Your task to perform on an android device: What's the news about the US? Image 0: 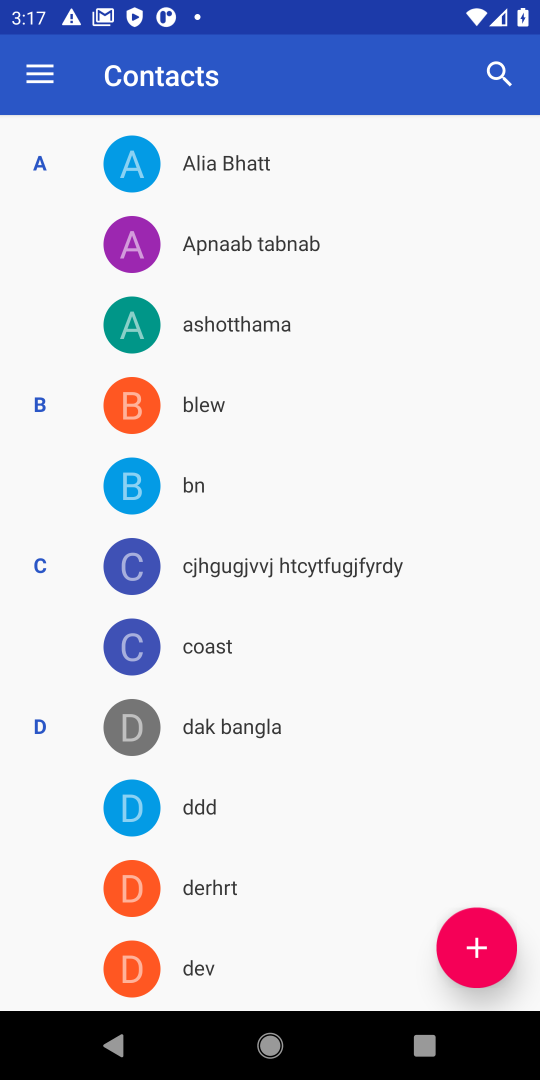
Step 0: press home button
Your task to perform on an android device: What's the news about the US? Image 1: 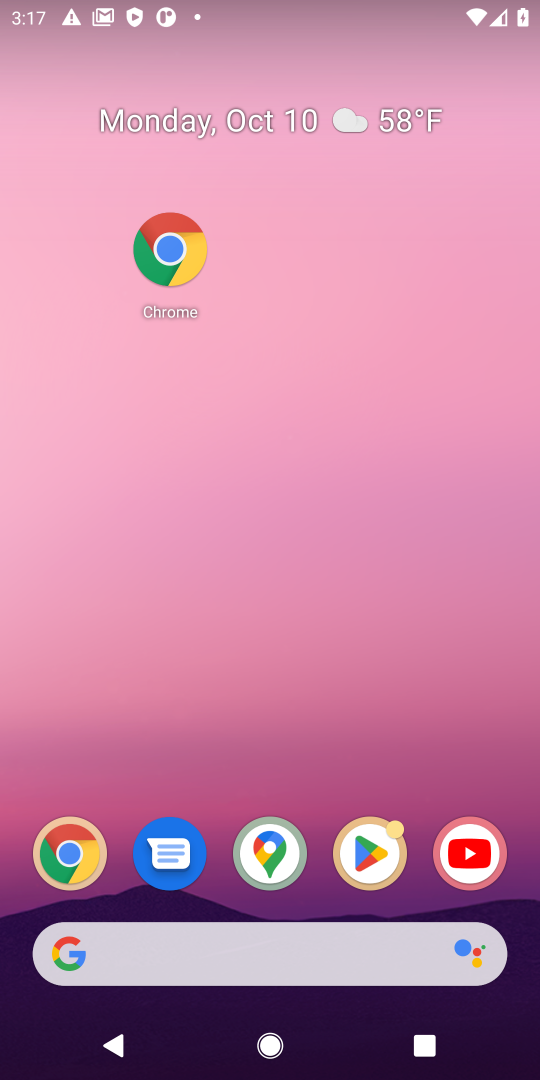
Step 1: click (183, 235)
Your task to perform on an android device: What's the news about the US? Image 2: 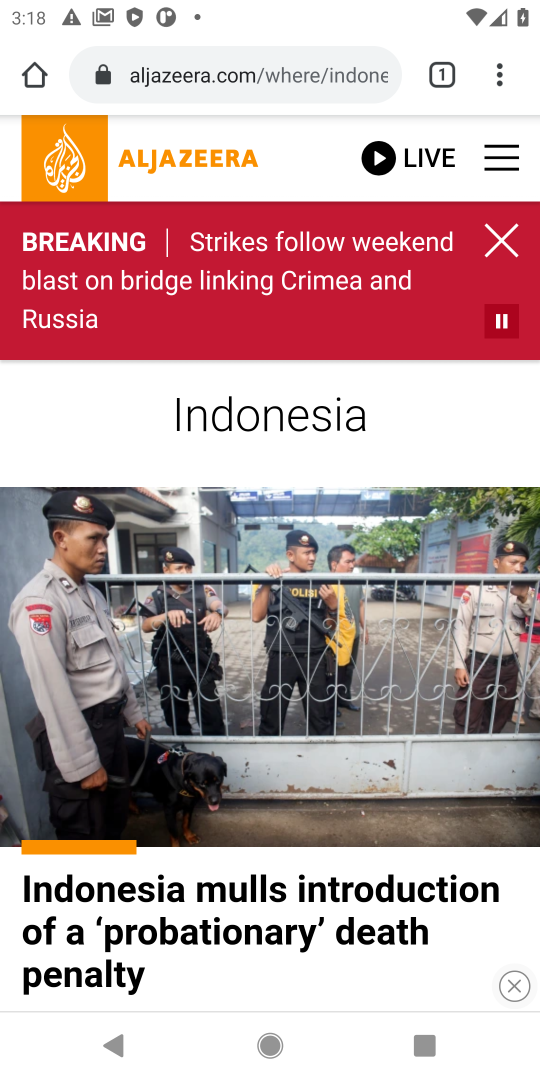
Step 2: click (256, 69)
Your task to perform on an android device: What's the news about the US? Image 3: 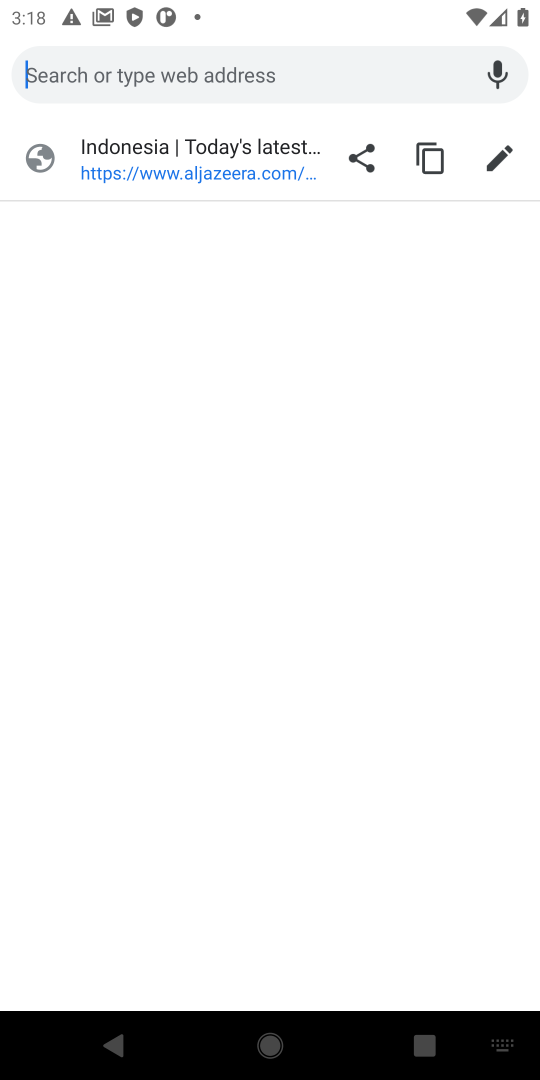
Step 3: type "What's the news about the US?"
Your task to perform on an android device: What's the news about the US? Image 4: 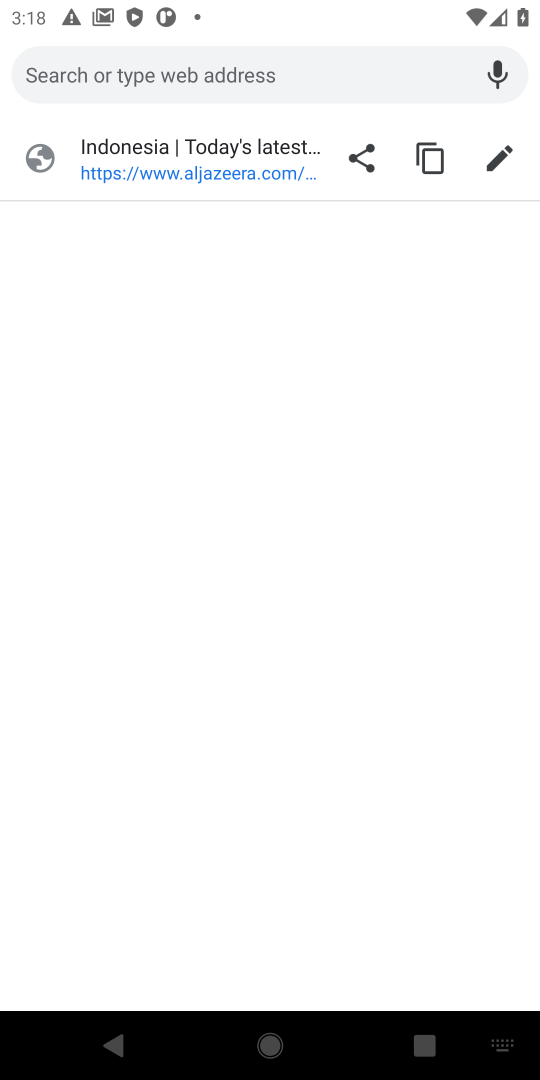
Step 4: click (211, 75)
Your task to perform on an android device: What's the news about the US? Image 5: 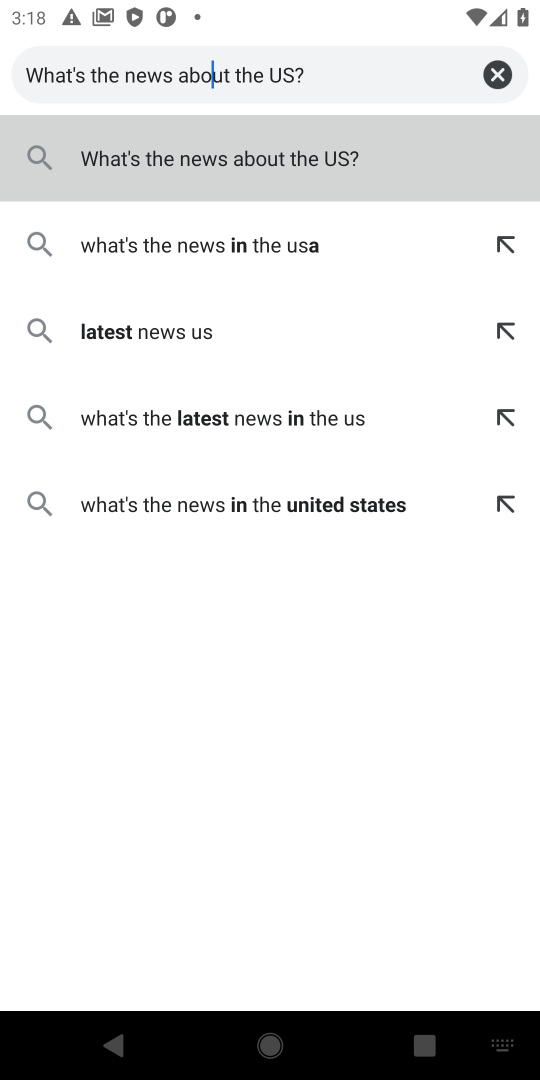
Step 5: click (226, 72)
Your task to perform on an android device: What's the news about the US? Image 6: 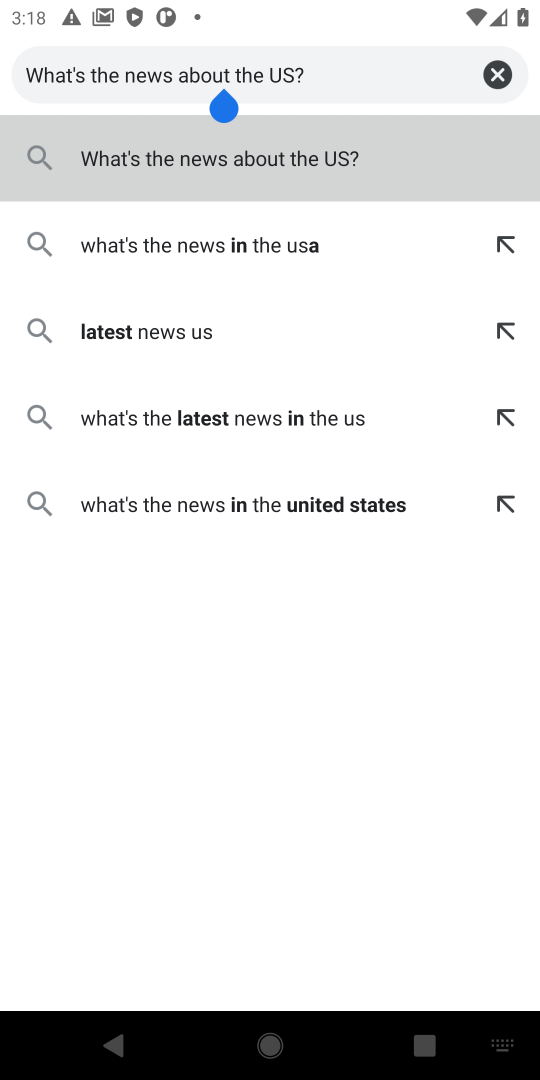
Step 6: click (242, 164)
Your task to perform on an android device: What's the news about the US? Image 7: 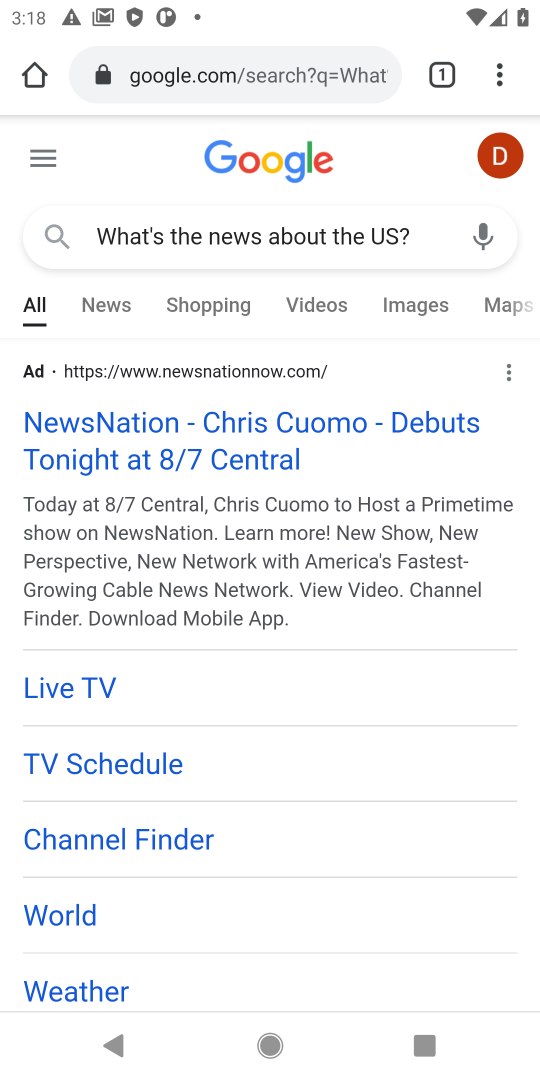
Step 7: click (322, 441)
Your task to perform on an android device: What's the news about the US? Image 8: 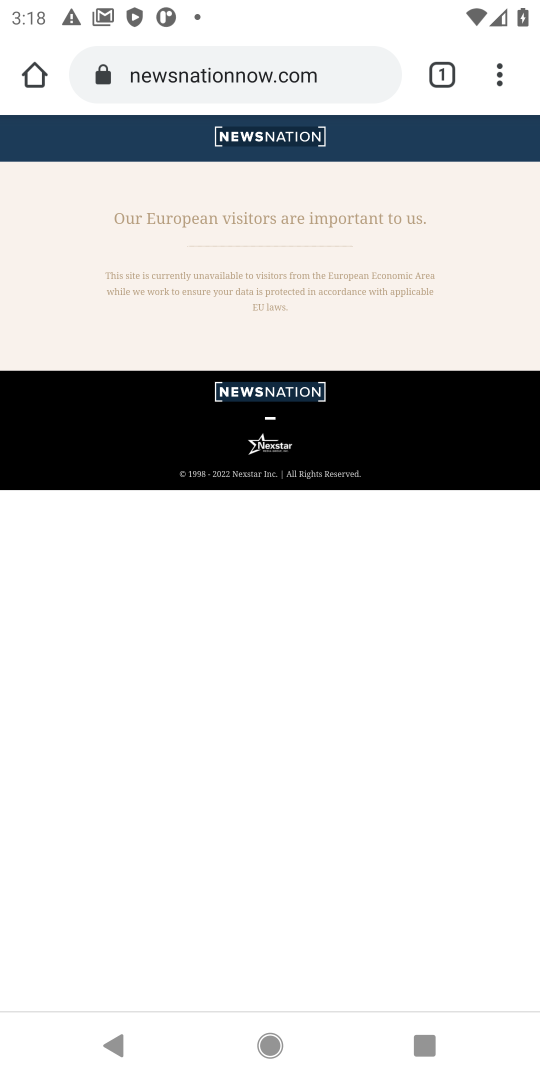
Step 8: task complete